Your task to perform on an android device: What is the recent news? Image 0: 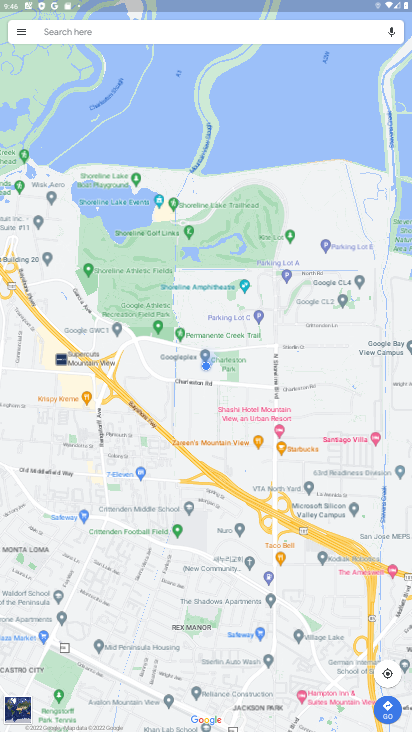
Step 0: press home button
Your task to perform on an android device: What is the recent news? Image 1: 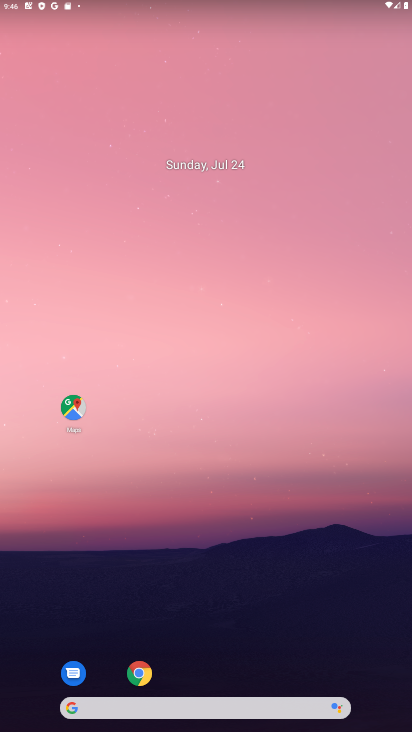
Step 1: click (102, 707)
Your task to perform on an android device: What is the recent news? Image 2: 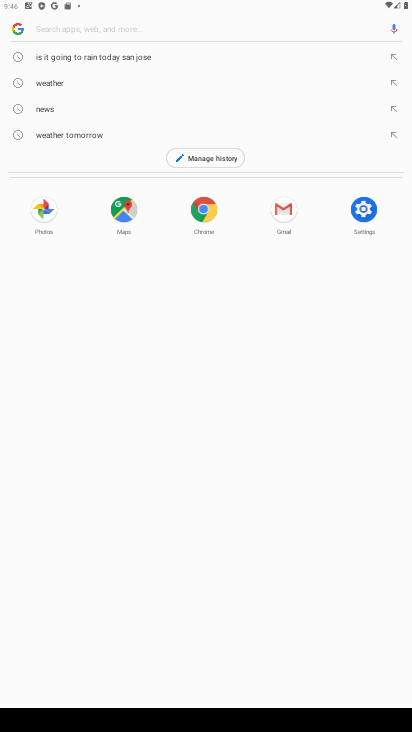
Step 2: type "What is the recent news?"
Your task to perform on an android device: What is the recent news? Image 3: 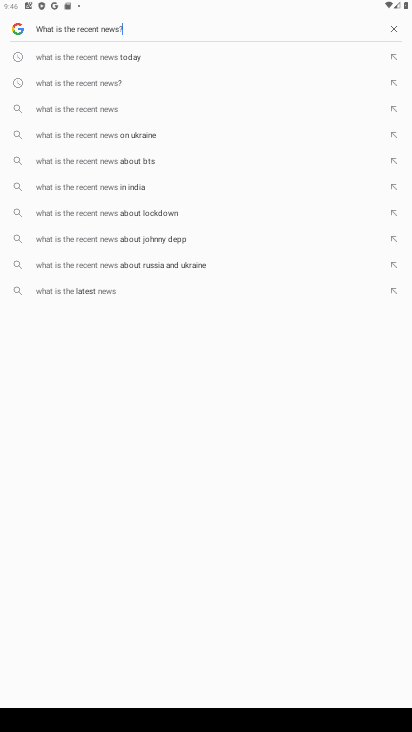
Step 3: type ""
Your task to perform on an android device: What is the recent news? Image 4: 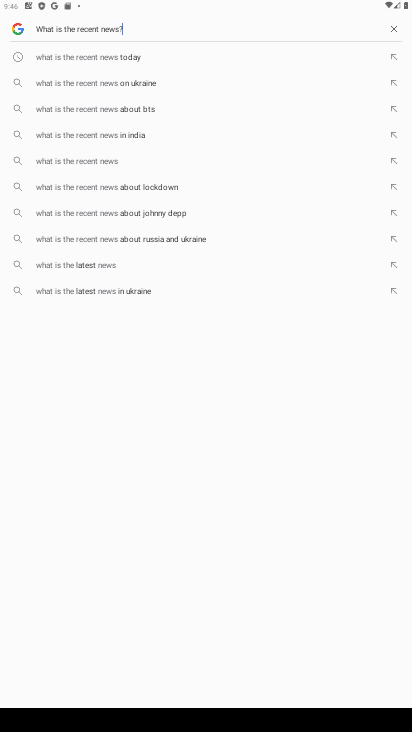
Step 4: type ""
Your task to perform on an android device: What is the recent news? Image 5: 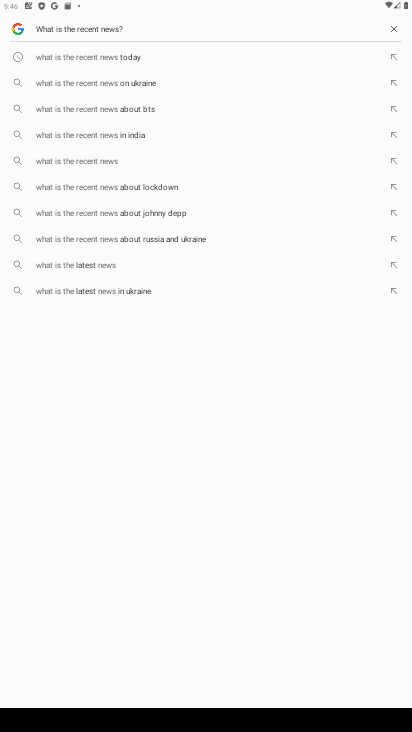
Step 5: type ""
Your task to perform on an android device: What is the recent news? Image 6: 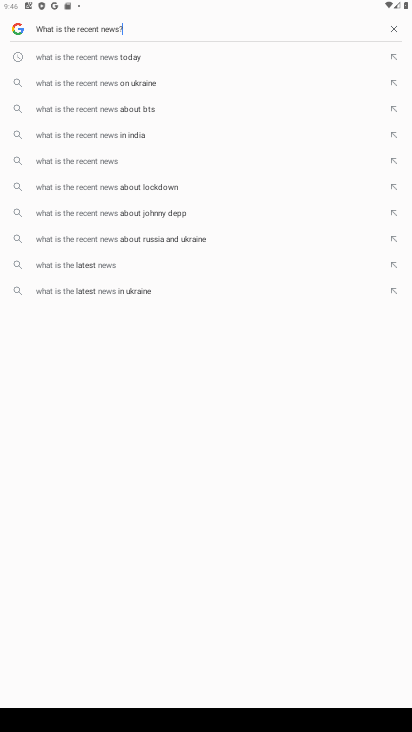
Step 6: task complete